Your task to perform on an android device: Open Youtube and go to the subscriptions tab Image 0: 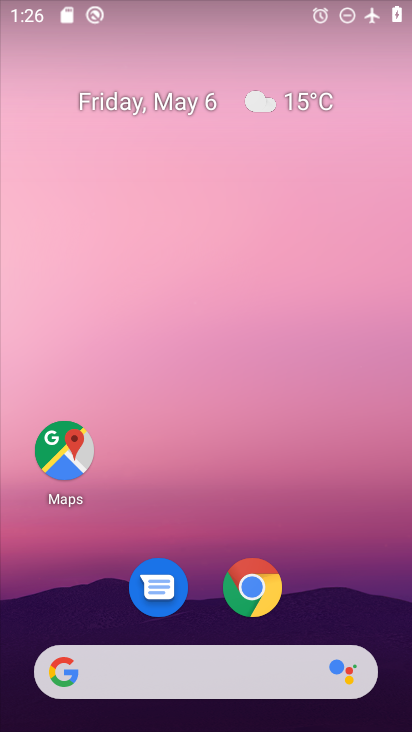
Step 0: drag from (331, 589) to (252, 38)
Your task to perform on an android device: Open Youtube and go to the subscriptions tab Image 1: 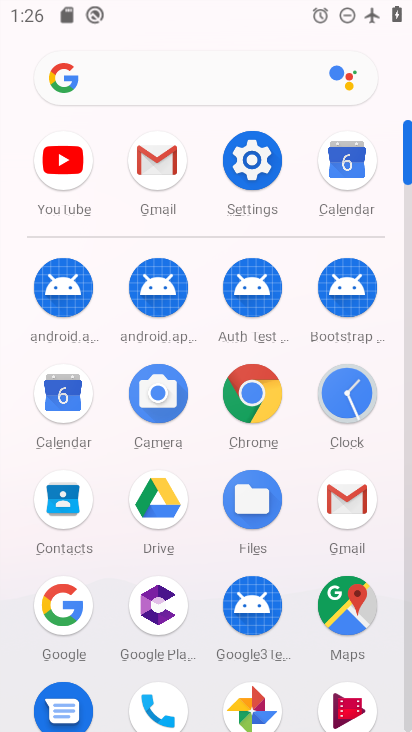
Step 1: click (63, 170)
Your task to perform on an android device: Open Youtube and go to the subscriptions tab Image 2: 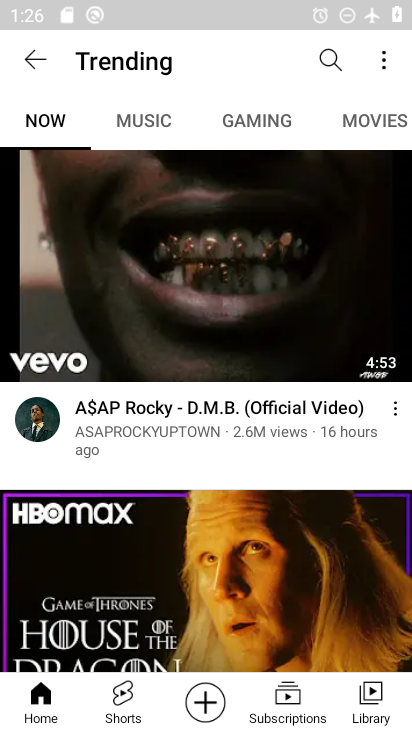
Step 2: click (291, 711)
Your task to perform on an android device: Open Youtube and go to the subscriptions tab Image 3: 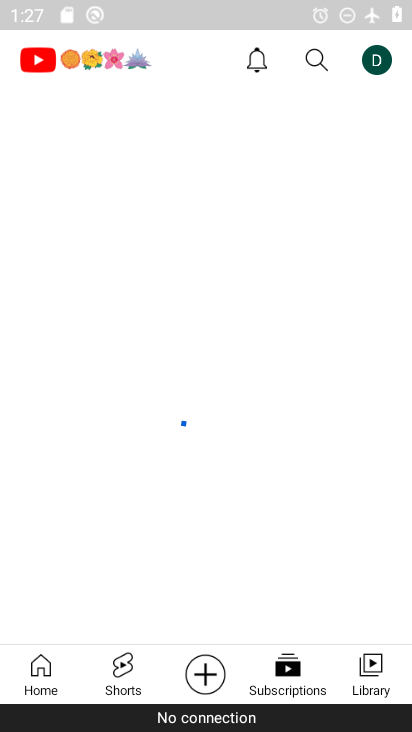
Step 3: task complete